Your task to perform on an android device: turn on wifi Image 0: 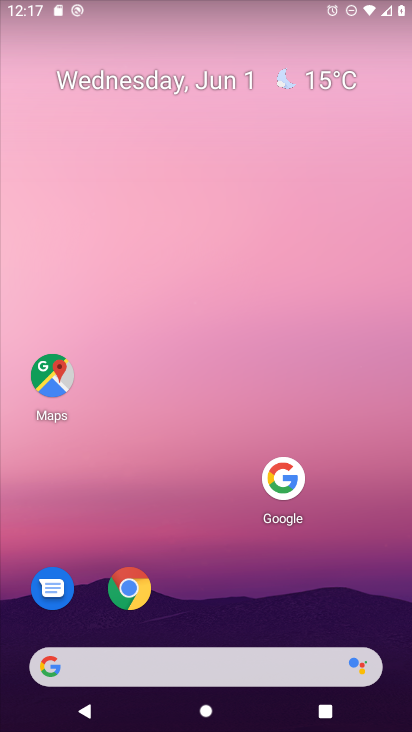
Step 0: press home button
Your task to perform on an android device: turn on wifi Image 1: 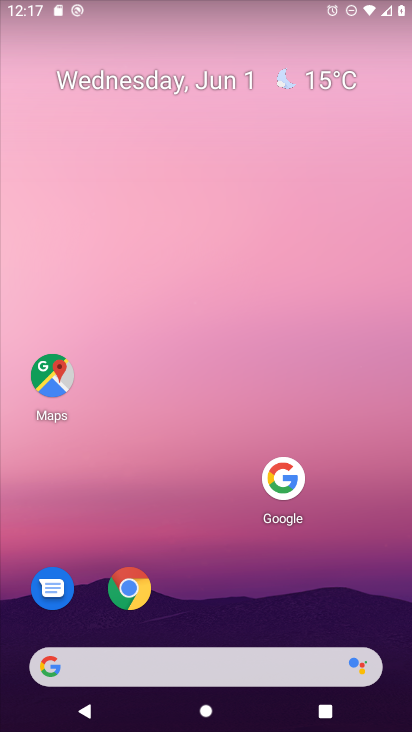
Step 1: drag from (116, 672) to (271, 92)
Your task to perform on an android device: turn on wifi Image 2: 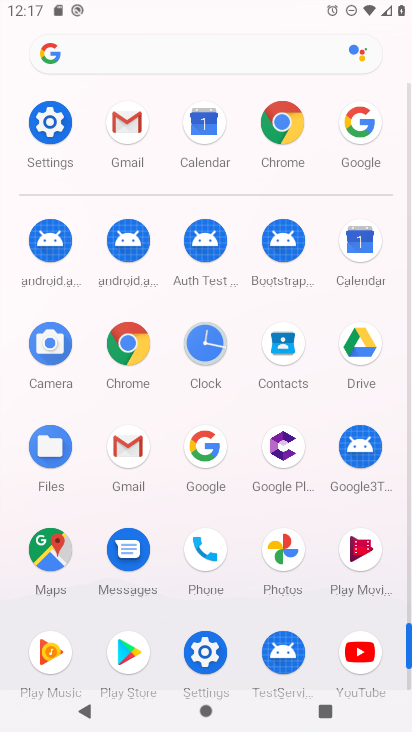
Step 2: click (50, 106)
Your task to perform on an android device: turn on wifi Image 3: 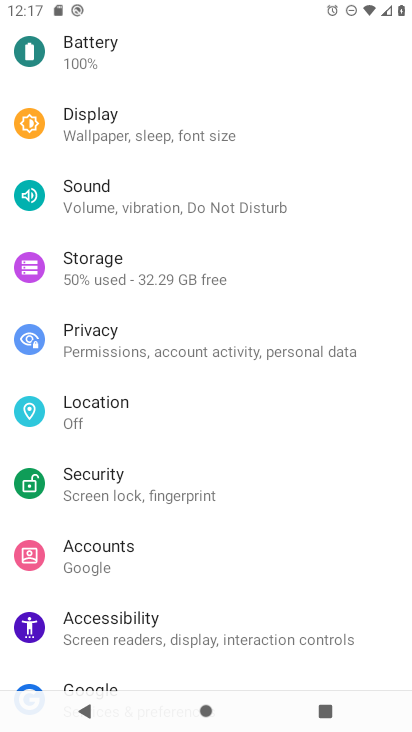
Step 3: drag from (320, 170) to (249, 680)
Your task to perform on an android device: turn on wifi Image 4: 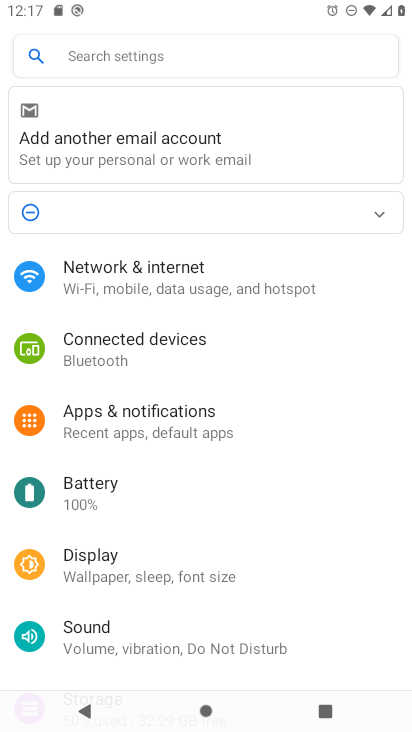
Step 4: click (164, 282)
Your task to perform on an android device: turn on wifi Image 5: 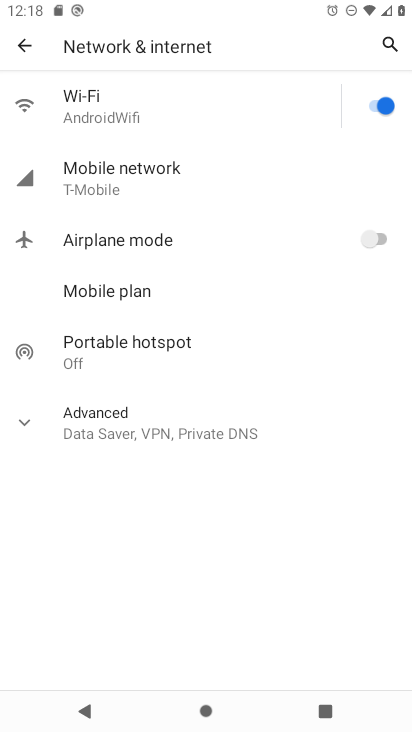
Step 5: task complete